Your task to perform on an android device: refresh tabs in the chrome app Image 0: 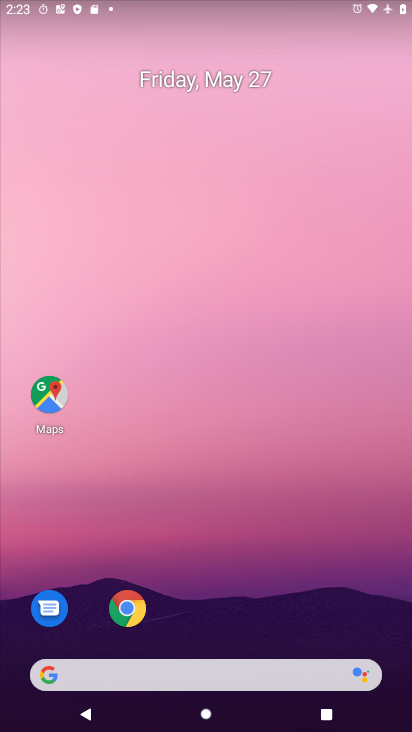
Step 0: press home button
Your task to perform on an android device: refresh tabs in the chrome app Image 1: 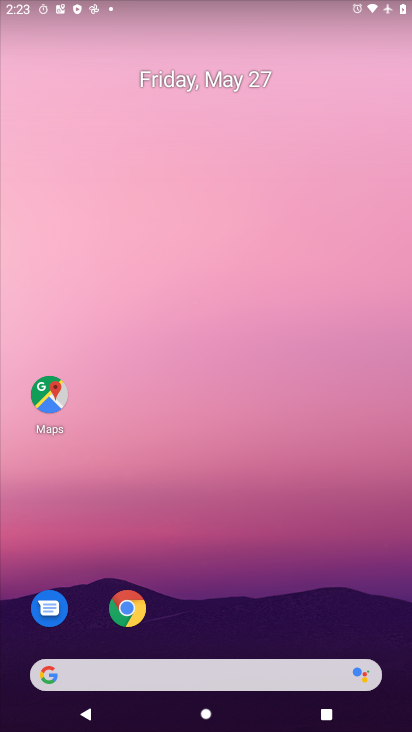
Step 1: click (130, 616)
Your task to perform on an android device: refresh tabs in the chrome app Image 2: 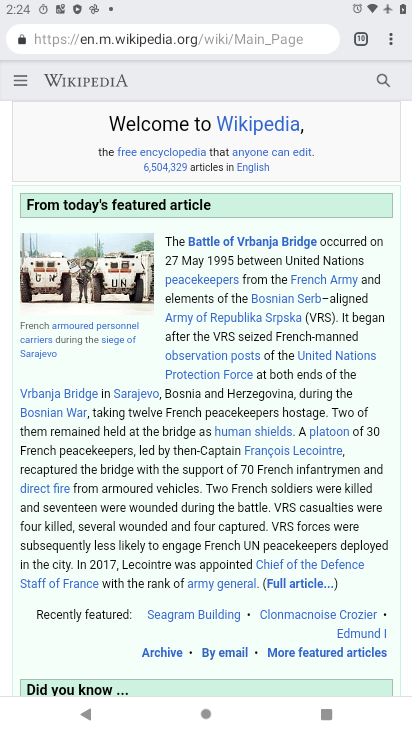
Step 2: click (388, 56)
Your task to perform on an android device: refresh tabs in the chrome app Image 3: 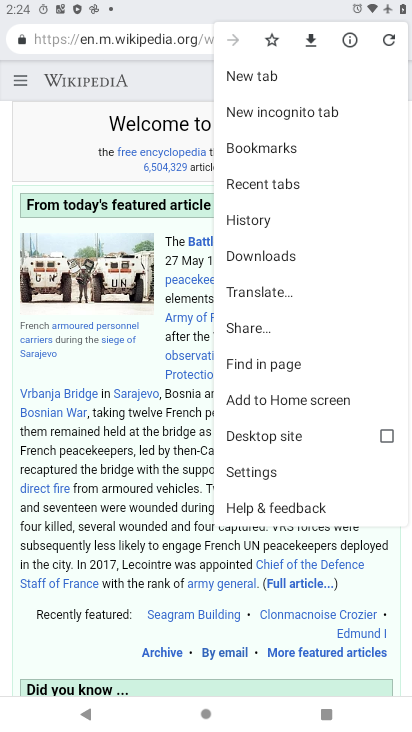
Step 3: click (389, 38)
Your task to perform on an android device: refresh tabs in the chrome app Image 4: 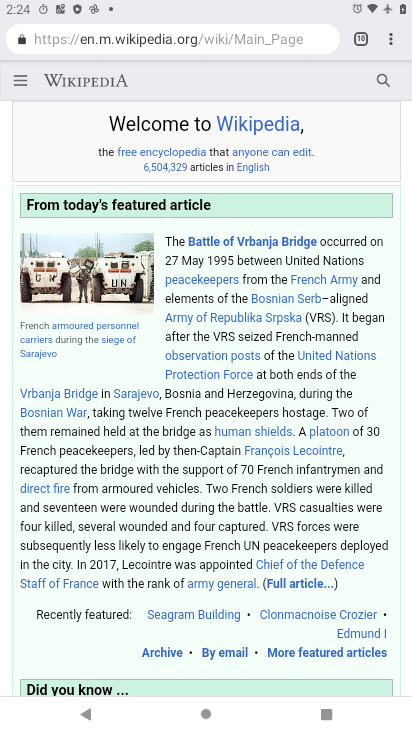
Step 4: task complete